Your task to perform on an android device: Open Youtube and go to "Your channel" Image 0: 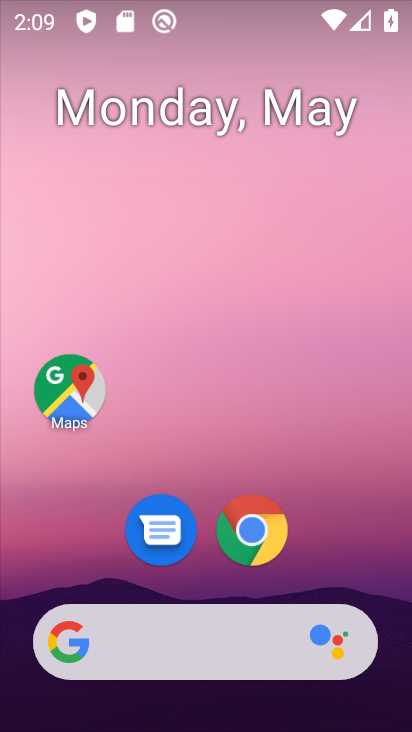
Step 0: drag from (262, 457) to (287, 96)
Your task to perform on an android device: Open Youtube and go to "Your channel" Image 1: 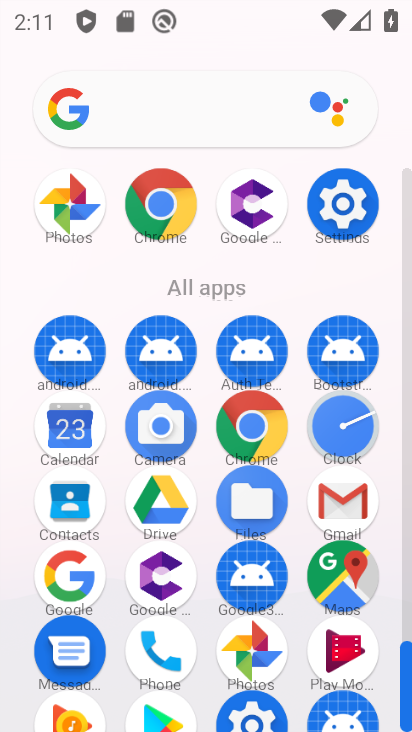
Step 1: drag from (171, 676) to (256, 119)
Your task to perform on an android device: Open Youtube and go to "Your channel" Image 2: 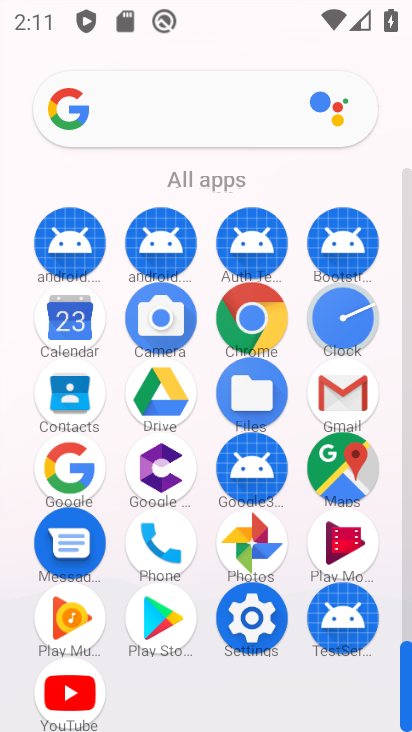
Step 2: click (74, 677)
Your task to perform on an android device: Open Youtube and go to "Your channel" Image 3: 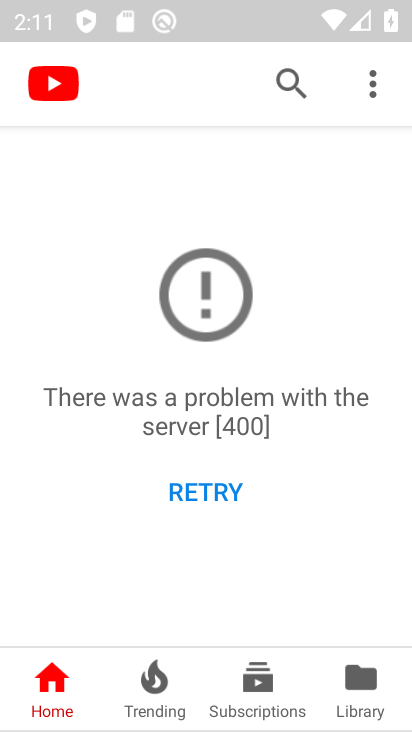
Step 3: task complete